Your task to perform on an android device: What's the weather today? Image 0: 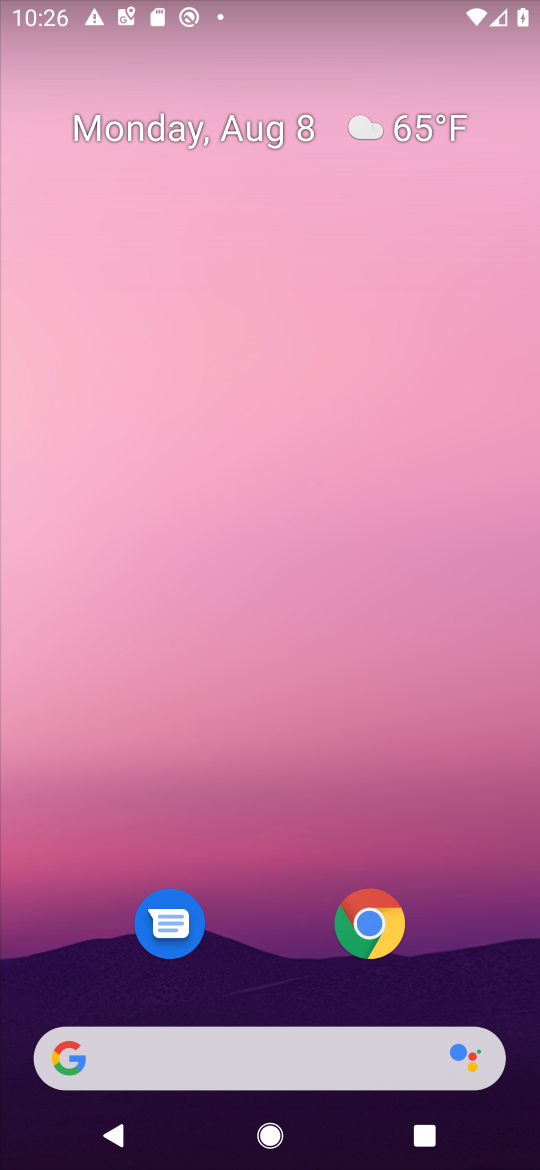
Step 0: click (126, 1060)
Your task to perform on an android device: What's the weather today? Image 1: 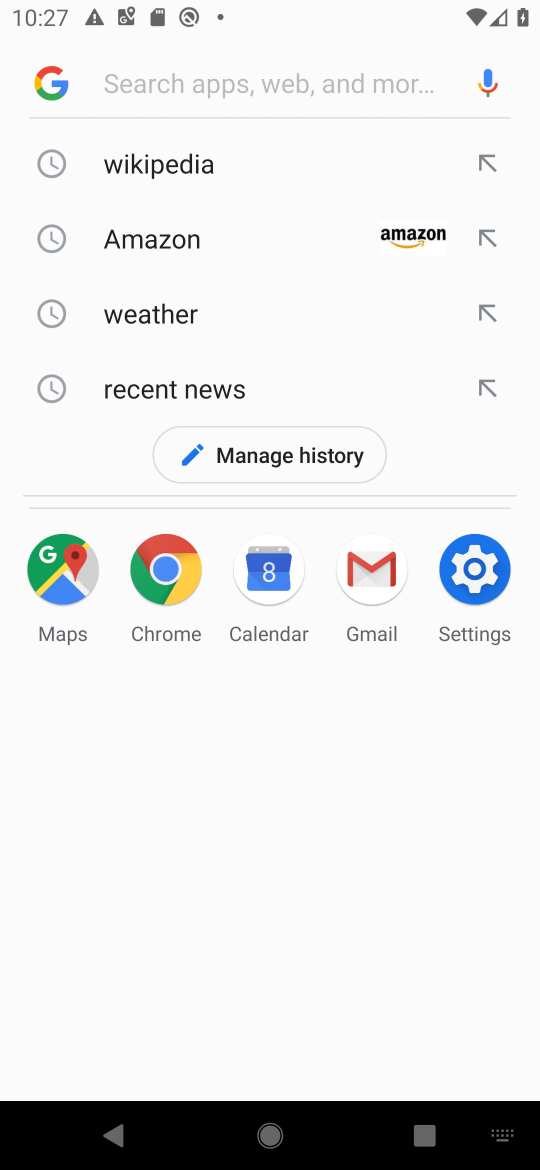
Step 1: type "What's the weather today?"
Your task to perform on an android device: What's the weather today? Image 2: 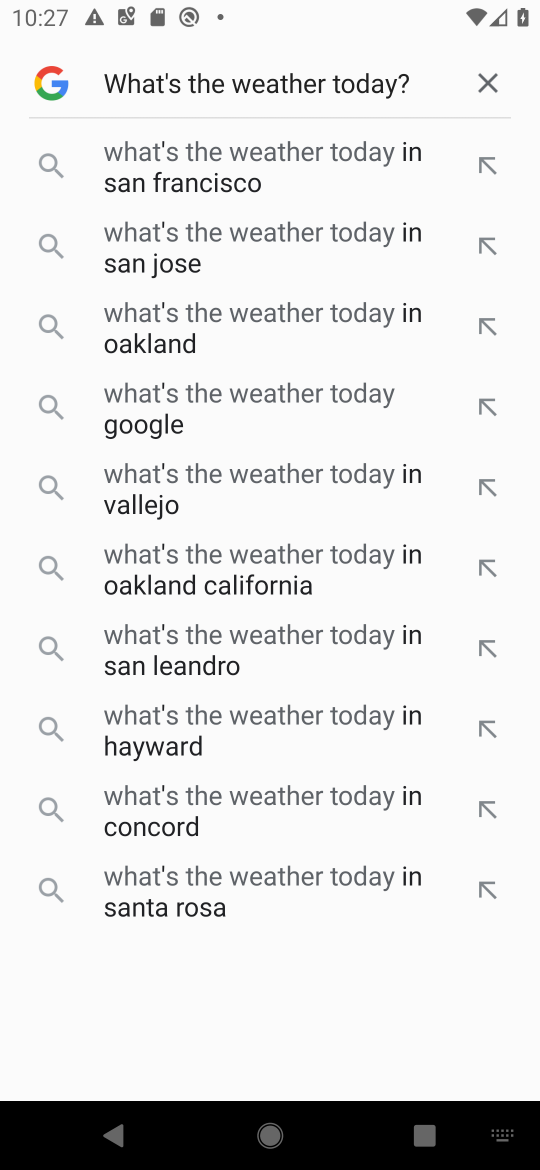
Step 2: type ""
Your task to perform on an android device: What's the weather today? Image 3: 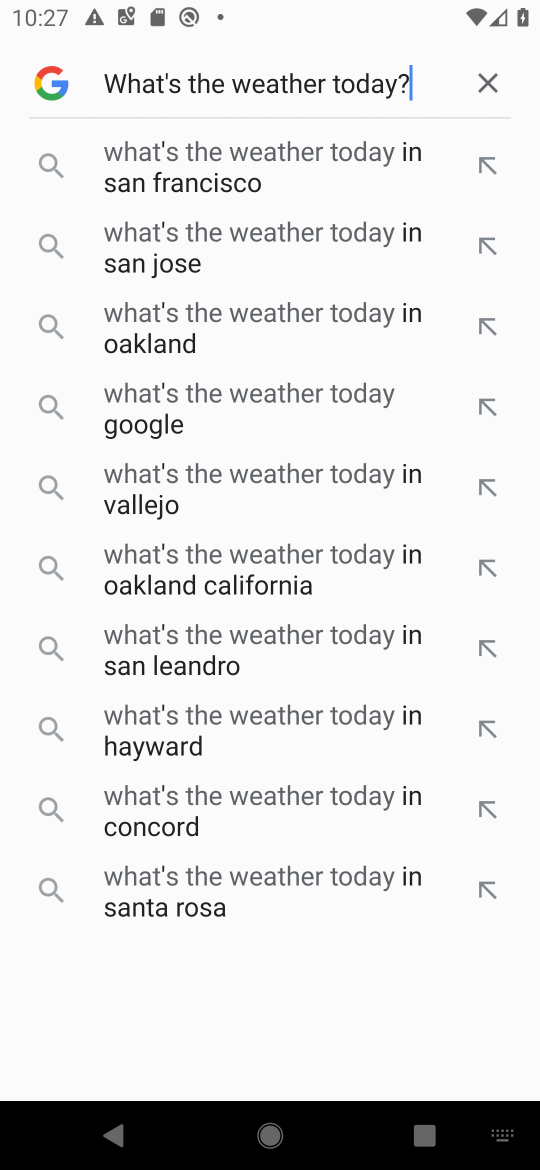
Step 3: type ""
Your task to perform on an android device: What's the weather today? Image 4: 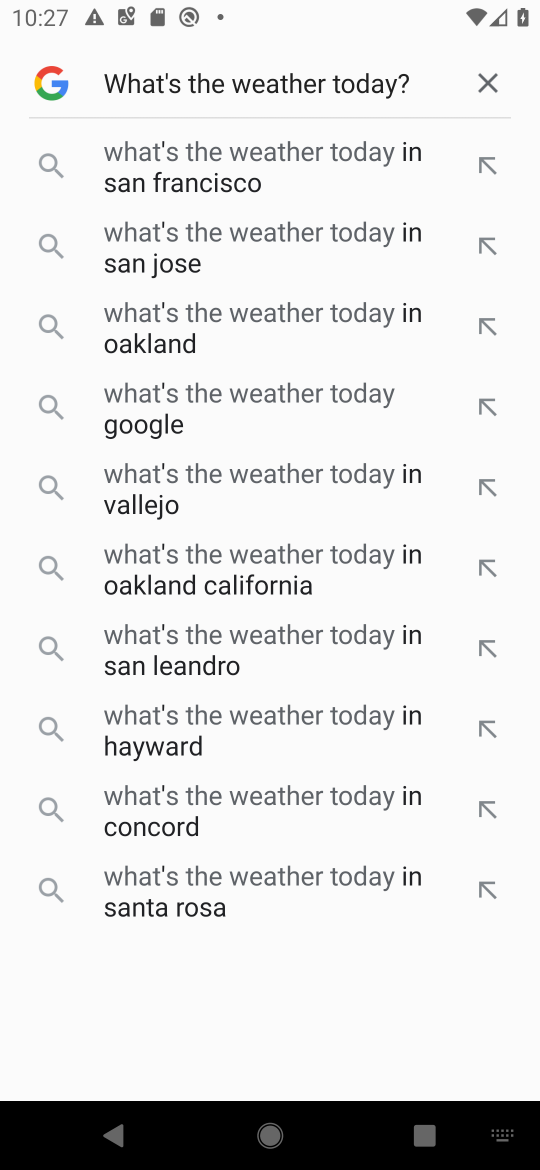
Step 4: task complete